Your task to perform on an android device: turn off notifications in google photos Image 0: 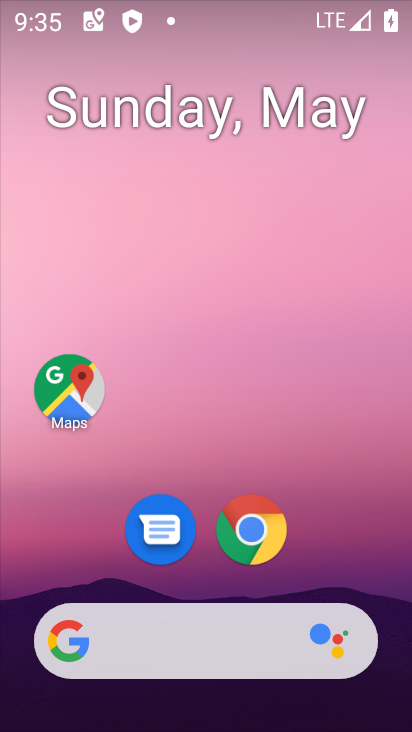
Step 0: drag from (360, 515) to (0, 0)
Your task to perform on an android device: turn off notifications in google photos Image 1: 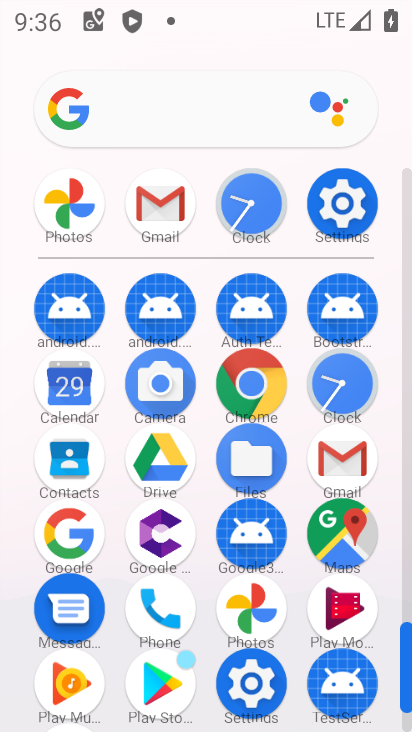
Step 1: click (249, 618)
Your task to perform on an android device: turn off notifications in google photos Image 2: 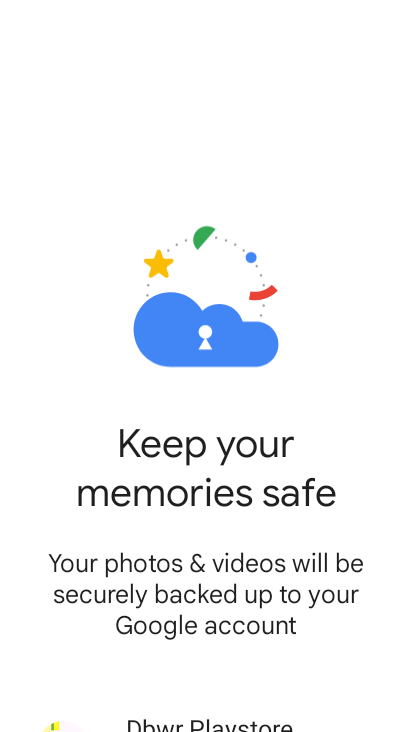
Step 2: task complete